Your task to perform on an android device: Toggle the flashlight Image 0: 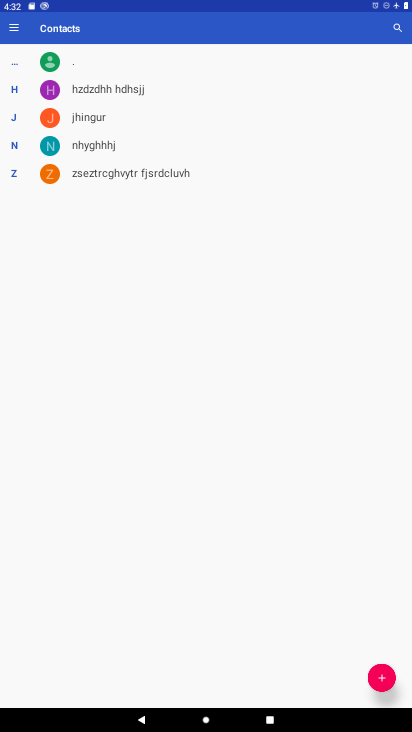
Step 0: press home button
Your task to perform on an android device: Toggle the flashlight Image 1: 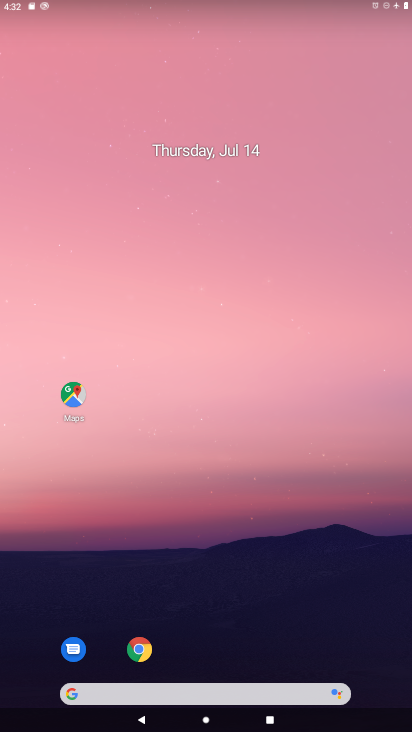
Step 1: drag from (227, 640) to (225, 200)
Your task to perform on an android device: Toggle the flashlight Image 2: 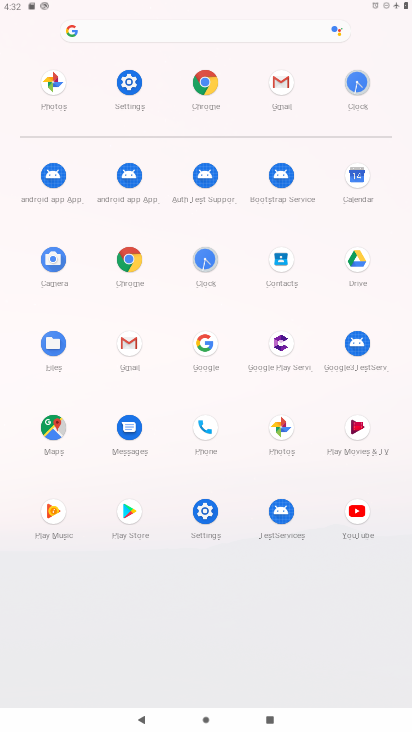
Step 2: click (136, 82)
Your task to perform on an android device: Toggle the flashlight Image 3: 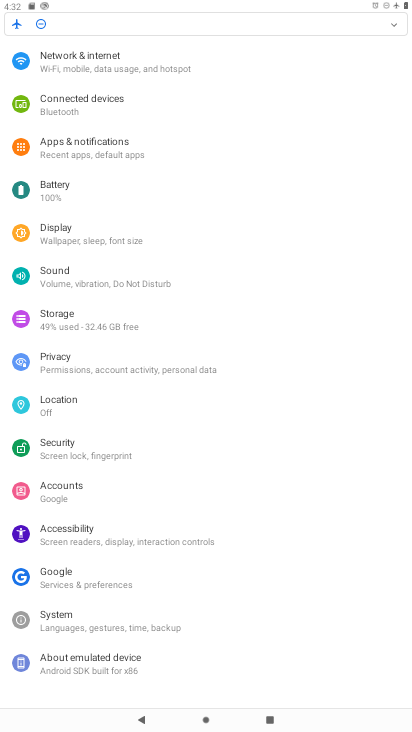
Step 3: drag from (170, 35) to (189, 441)
Your task to perform on an android device: Toggle the flashlight Image 4: 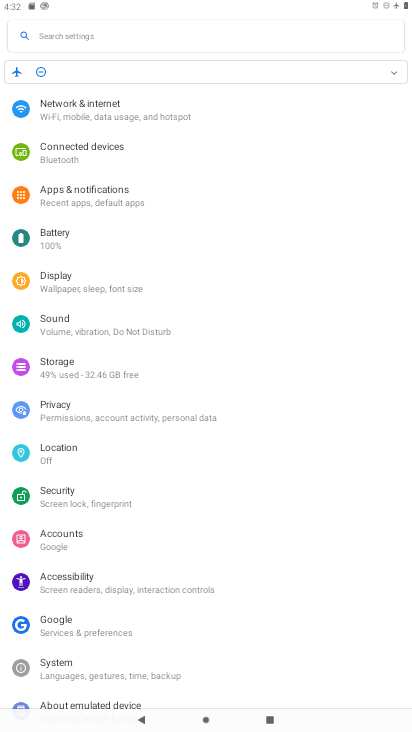
Step 4: click (174, 32)
Your task to perform on an android device: Toggle the flashlight Image 5: 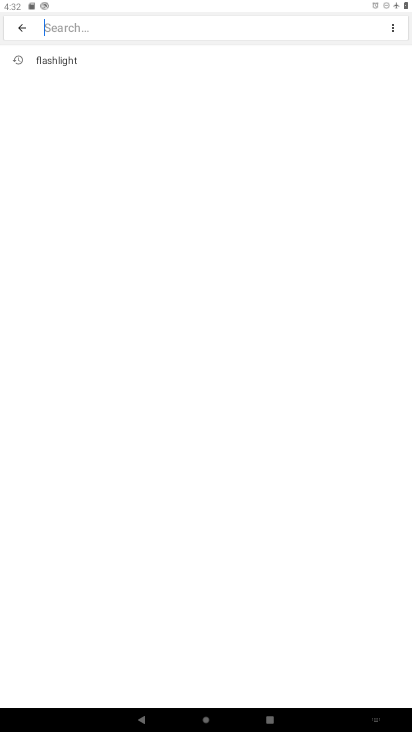
Step 5: type "flashlight"
Your task to perform on an android device: Toggle the flashlight Image 6: 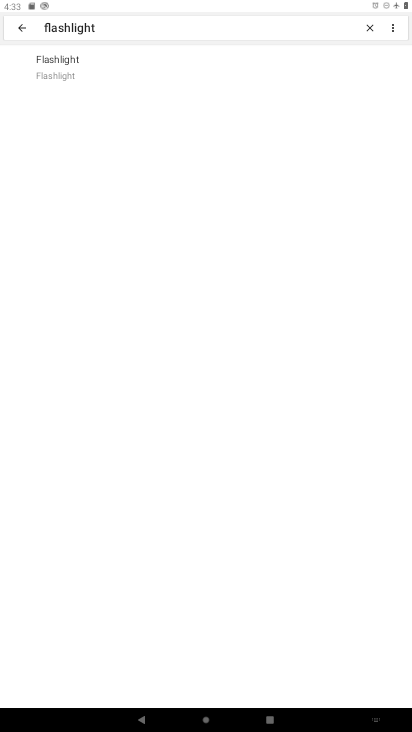
Step 6: click (79, 55)
Your task to perform on an android device: Toggle the flashlight Image 7: 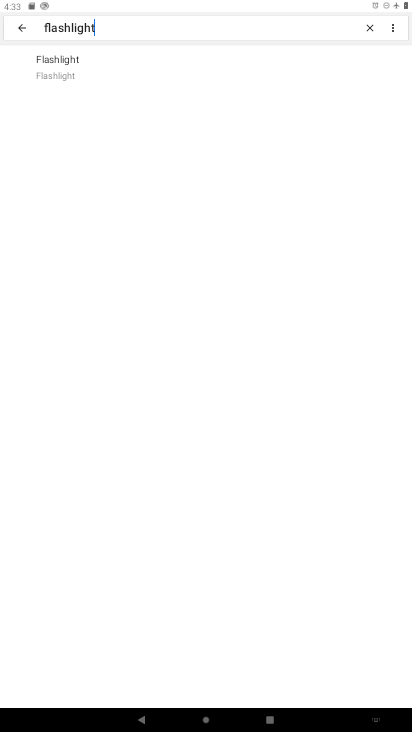
Step 7: click (79, 55)
Your task to perform on an android device: Toggle the flashlight Image 8: 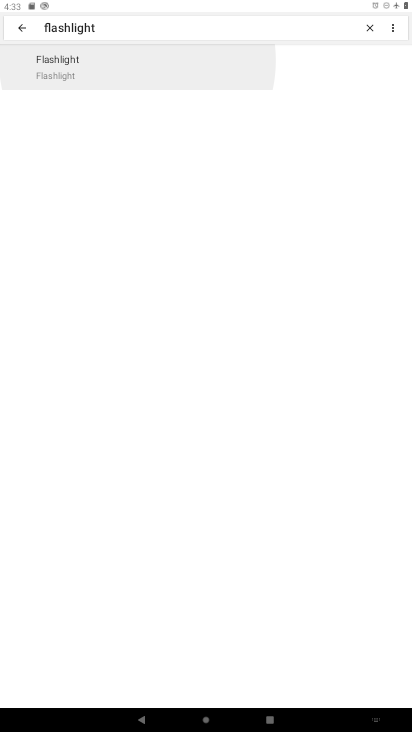
Step 8: click (79, 55)
Your task to perform on an android device: Toggle the flashlight Image 9: 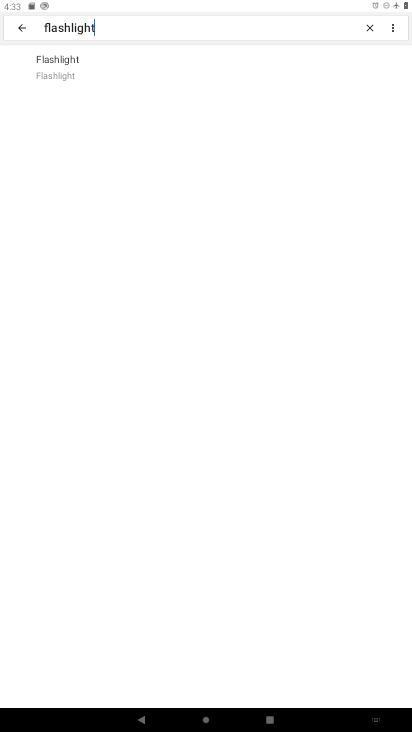
Step 9: task complete